Your task to perform on an android device: Open network settings Image 0: 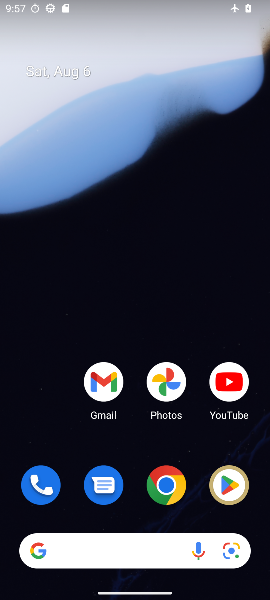
Step 0: drag from (138, 426) to (135, 26)
Your task to perform on an android device: Open network settings Image 1: 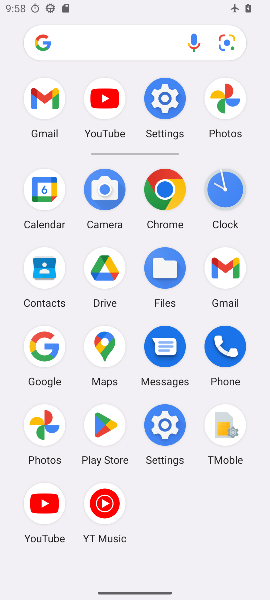
Step 1: click (152, 427)
Your task to perform on an android device: Open network settings Image 2: 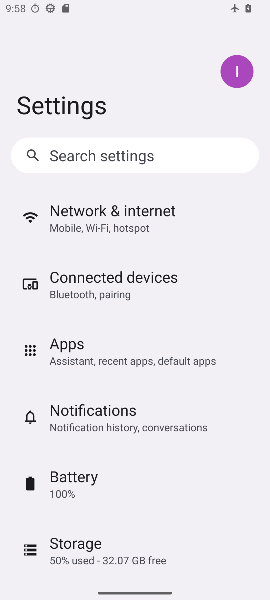
Step 2: click (114, 208)
Your task to perform on an android device: Open network settings Image 3: 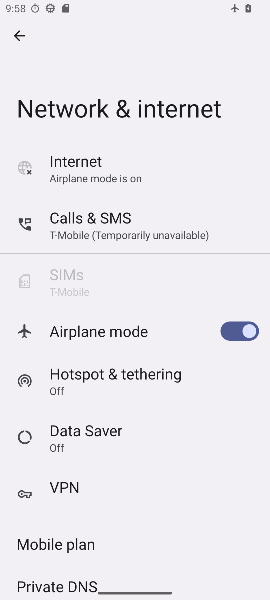
Step 3: task complete